Your task to perform on an android device: Go to Google maps Image 0: 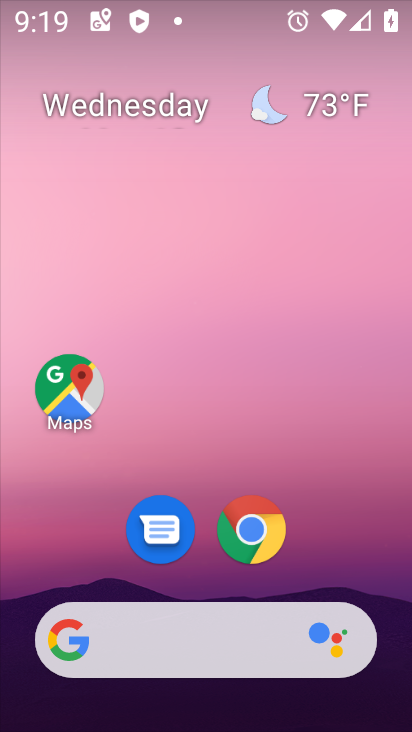
Step 0: drag from (390, 564) to (389, 260)
Your task to perform on an android device: Go to Google maps Image 1: 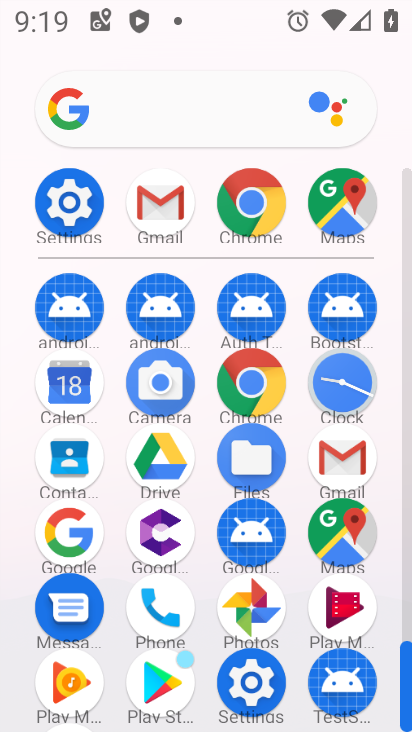
Step 1: drag from (394, 526) to (383, 397)
Your task to perform on an android device: Go to Google maps Image 2: 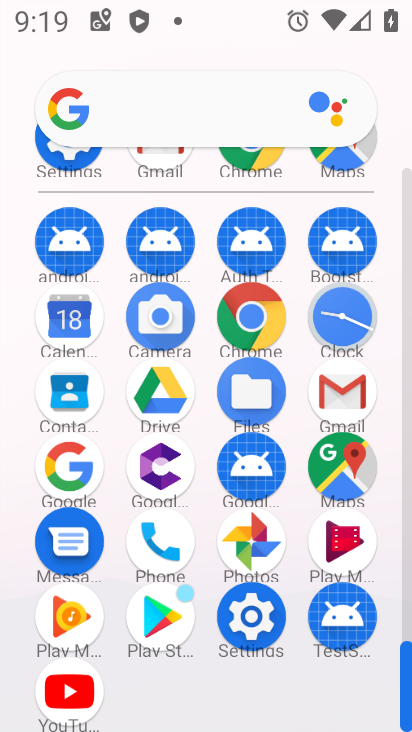
Step 2: click (352, 485)
Your task to perform on an android device: Go to Google maps Image 3: 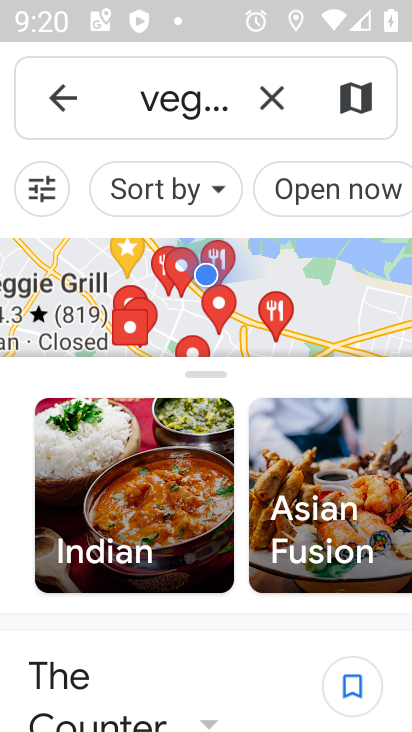
Step 3: task complete